Your task to perform on an android device: change the clock display to digital Image 0: 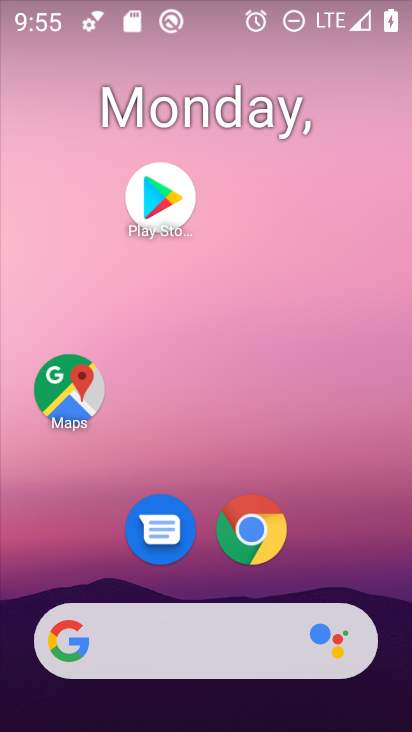
Step 0: drag from (345, 478) to (244, 79)
Your task to perform on an android device: change the clock display to digital Image 1: 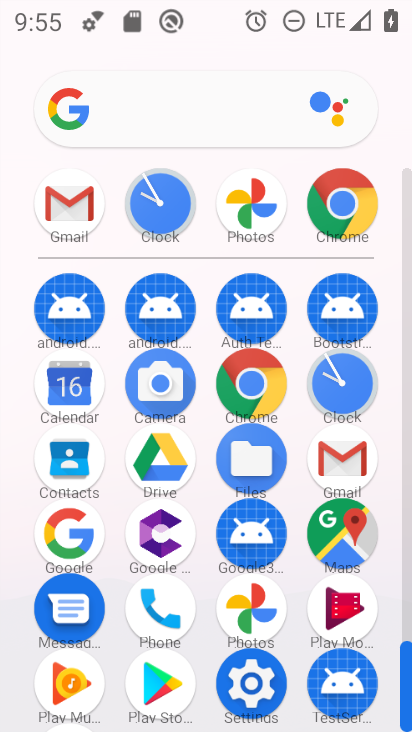
Step 1: click (145, 207)
Your task to perform on an android device: change the clock display to digital Image 2: 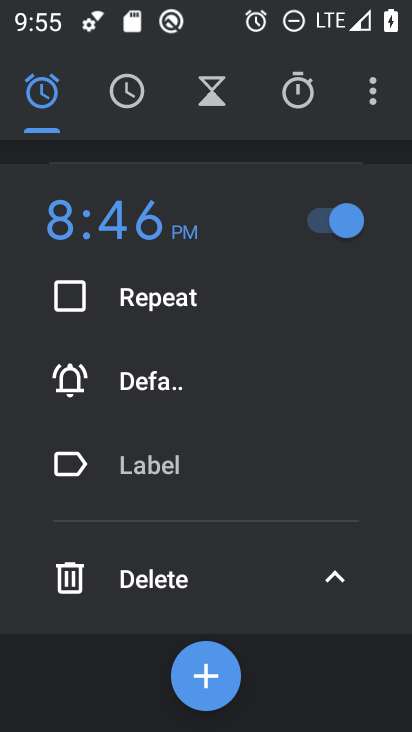
Step 2: click (373, 78)
Your task to perform on an android device: change the clock display to digital Image 3: 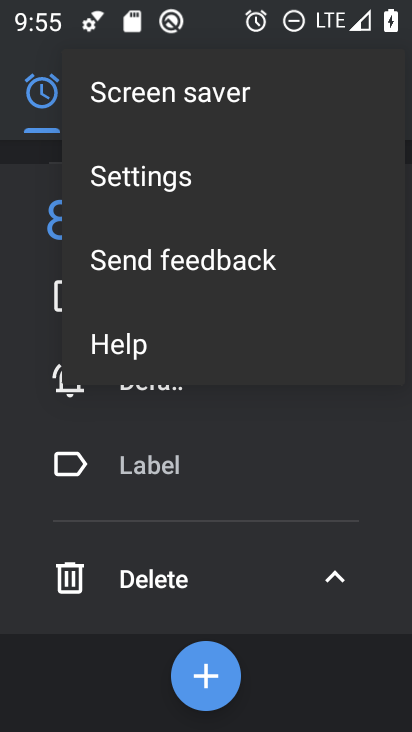
Step 3: click (128, 168)
Your task to perform on an android device: change the clock display to digital Image 4: 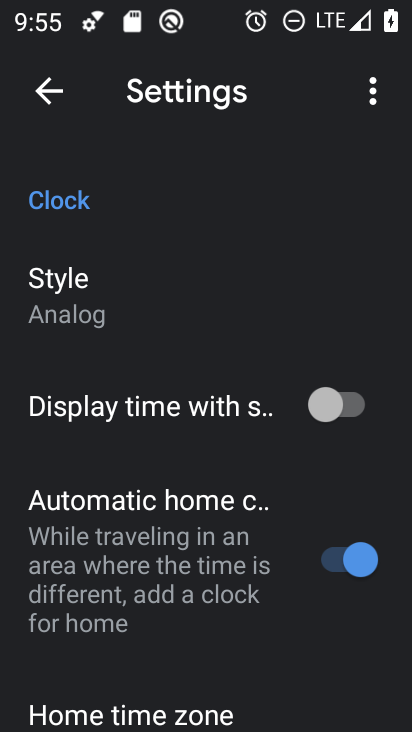
Step 4: click (69, 274)
Your task to perform on an android device: change the clock display to digital Image 5: 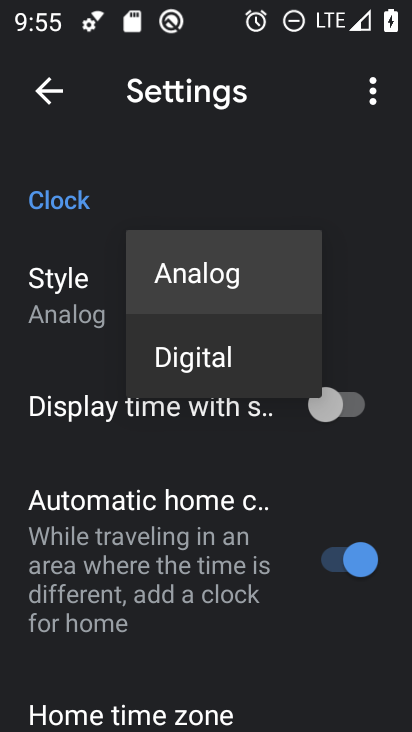
Step 5: click (167, 358)
Your task to perform on an android device: change the clock display to digital Image 6: 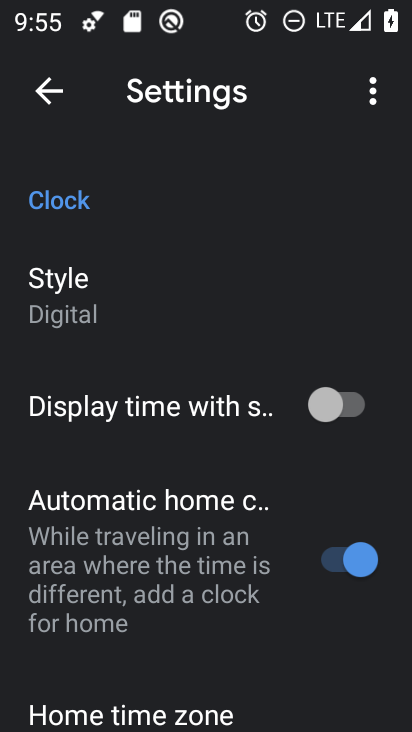
Step 6: task complete